Your task to perform on an android device: Find coffee shops on Maps Image 0: 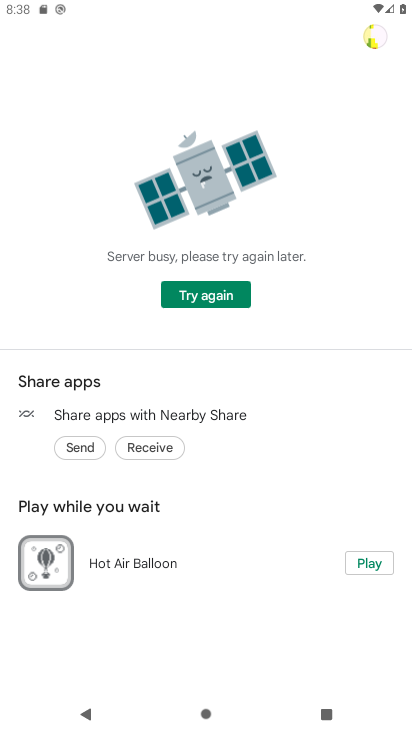
Step 0: drag from (143, 487) to (249, 202)
Your task to perform on an android device: Find coffee shops on Maps Image 1: 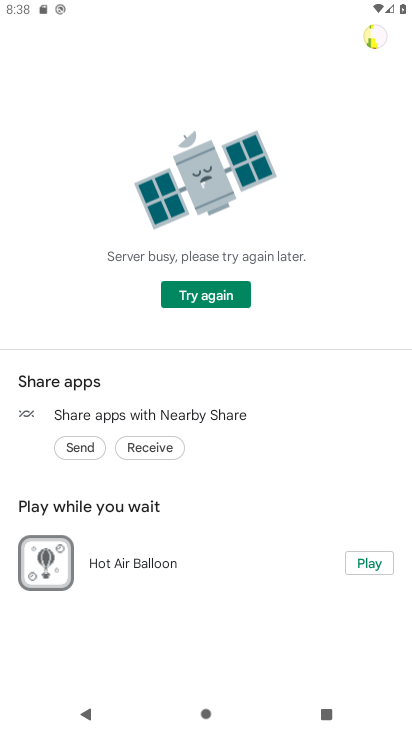
Step 1: drag from (193, 489) to (266, 302)
Your task to perform on an android device: Find coffee shops on Maps Image 2: 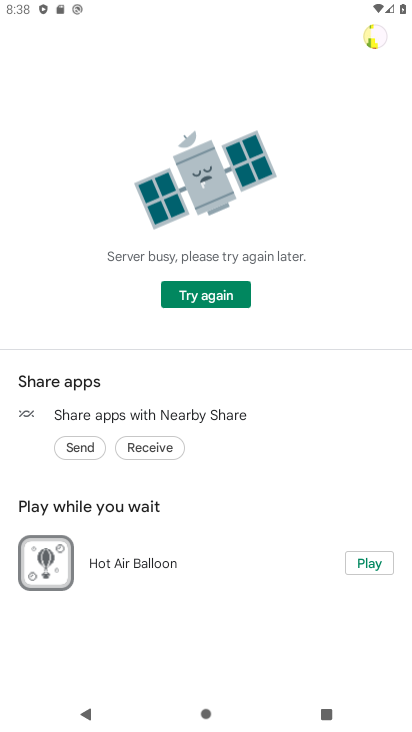
Step 2: press home button
Your task to perform on an android device: Find coffee shops on Maps Image 3: 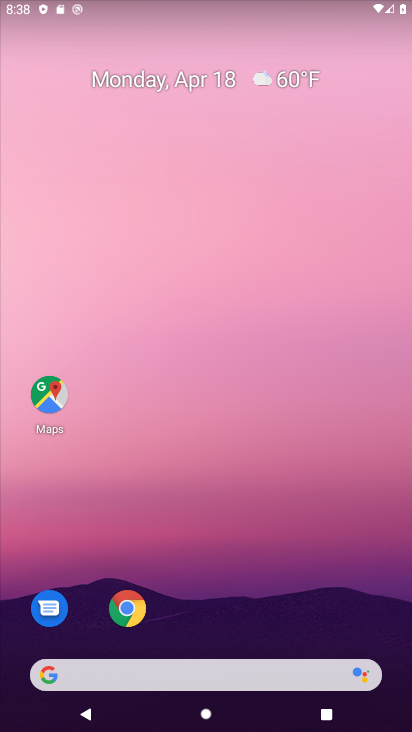
Step 3: drag from (214, 623) to (372, 235)
Your task to perform on an android device: Find coffee shops on Maps Image 4: 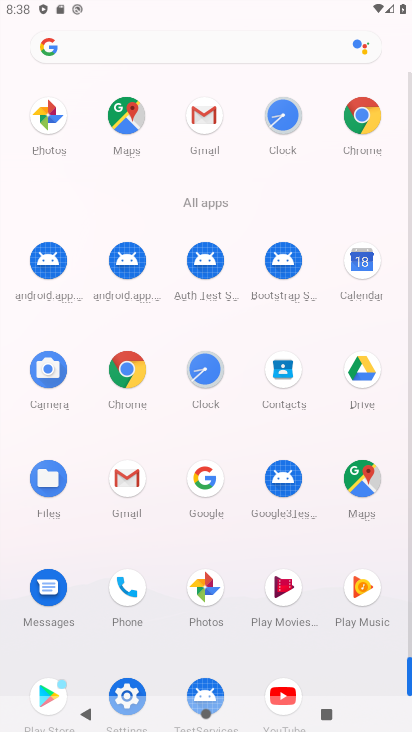
Step 4: click (348, 488)
Your task to perform on an android device: Find coffee shops on Maps Image 5: 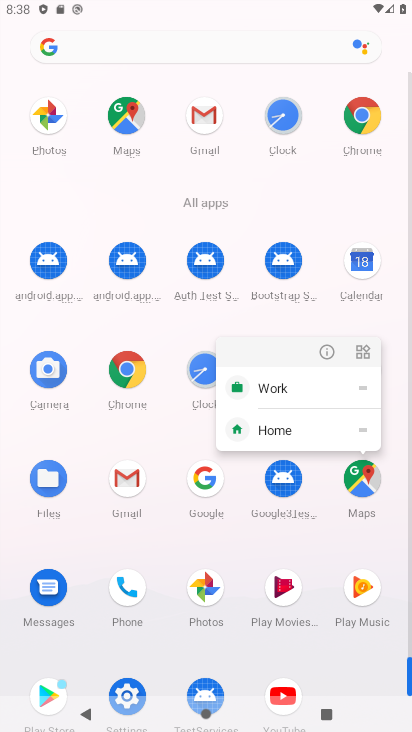
Step 5: click (324, 353)
Your task to perform on an android device: Find coffee shops on Maps Image 6: 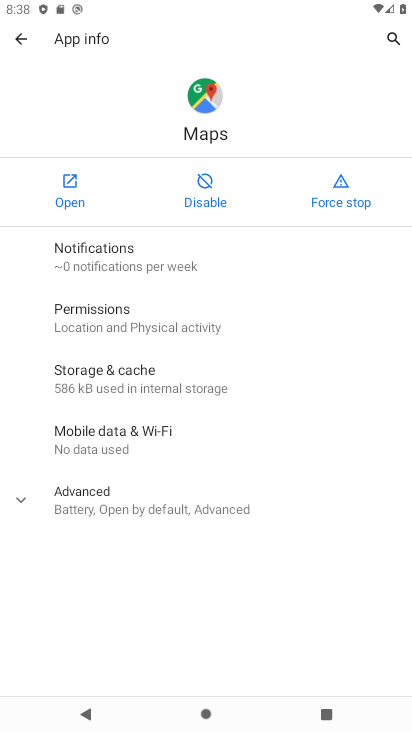
Step 6: click (56, 185)
Your task to perform on an android device: Find coffee shops on Maps Image 7: 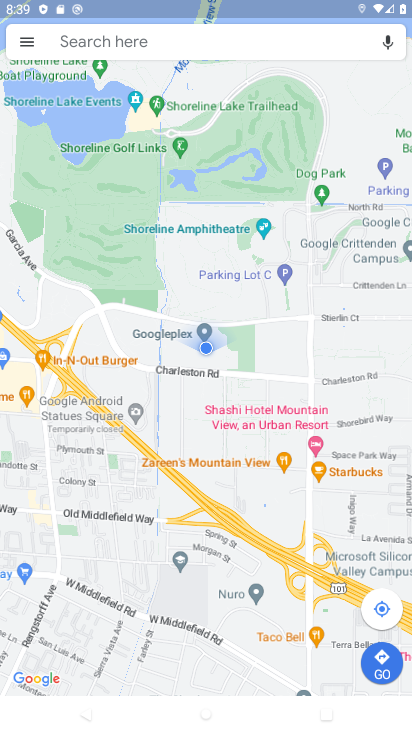
Step 7: drag from (137, 538) to (317, 135)
Your task to perform on an android device: Find coffee shops on Maps Image 8: 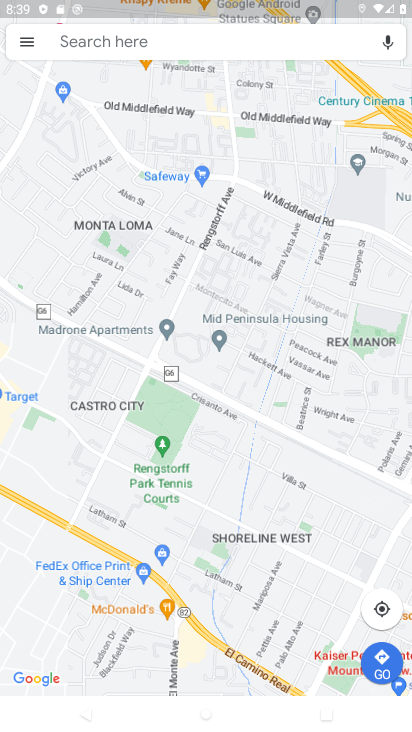
Step 8: click (234, 49)
Your task to perform on an android device: Find coffee shops on Maps Image 9: 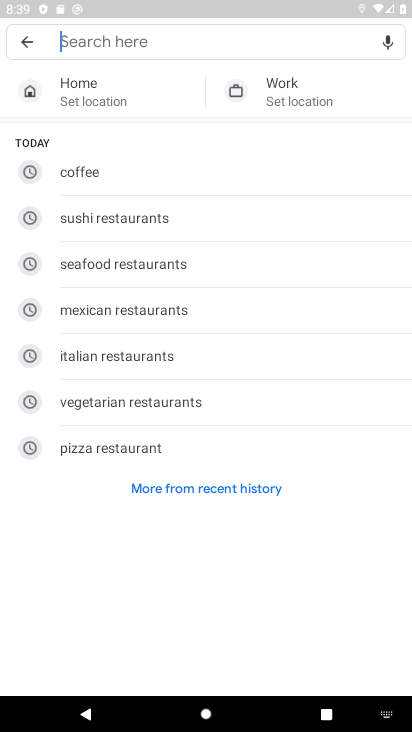
Step 9: click (66, 181)
Your task to perform on an android device: Find coffee shops on Maps Image 10: 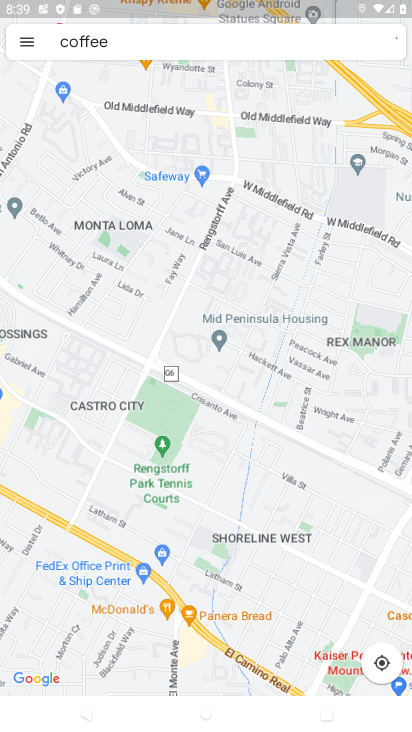
Step 10: task complete